Your task to perform on an android device: Open privacy settings Image 0: 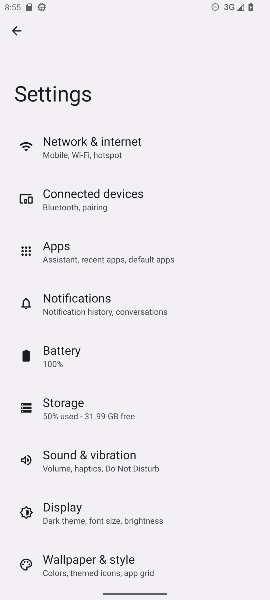
Step 0: drag from (105, 435) to (57, 156)
Your task to perform on an android device: Open privacy settings Image 1: 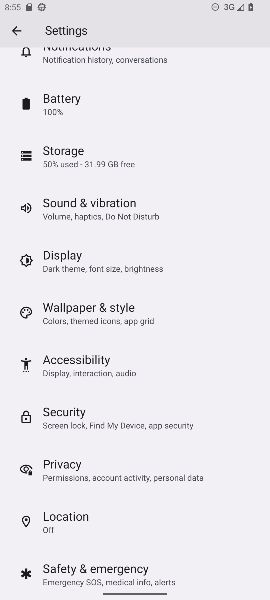
Step 1: click (82, 455)
Your task to perform on an android device: Open privacy settings Image 2: 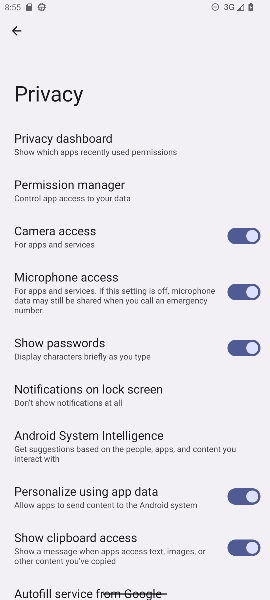
Step 2: task complete